Your task to perform on an android device: Go to Maps Image 0: 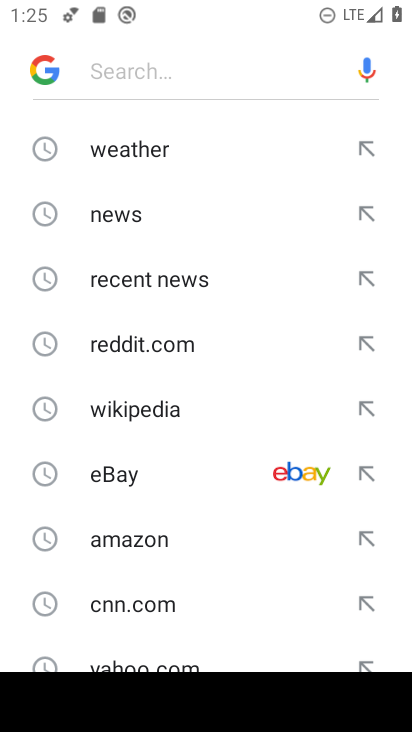
Step 0: press home button
Your task to perform on an android device: Go to Maps Image 1: 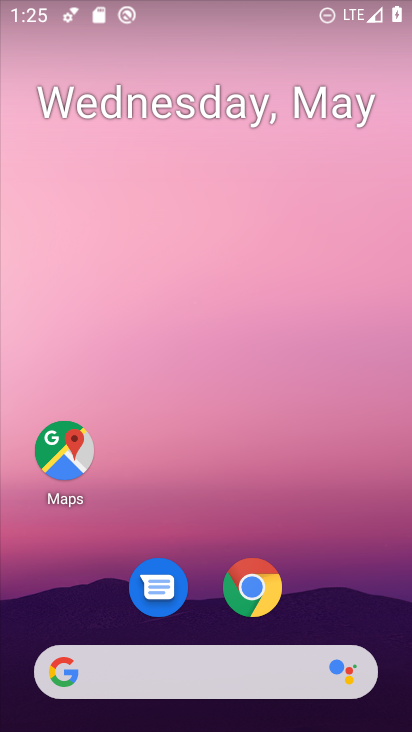
Step 1: drag from (305, 599) to (260, 170)
Your task to perform on an android device: Go to Maps Image 2: 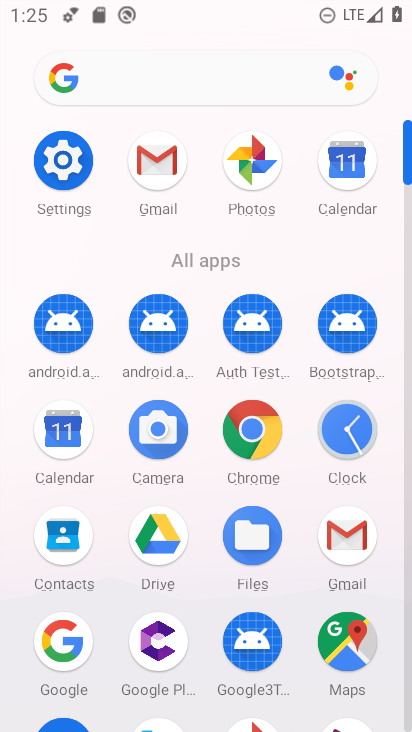
Step 2: click (346, 650)
Your task to perform on an android device: Go to Maps Image 3: 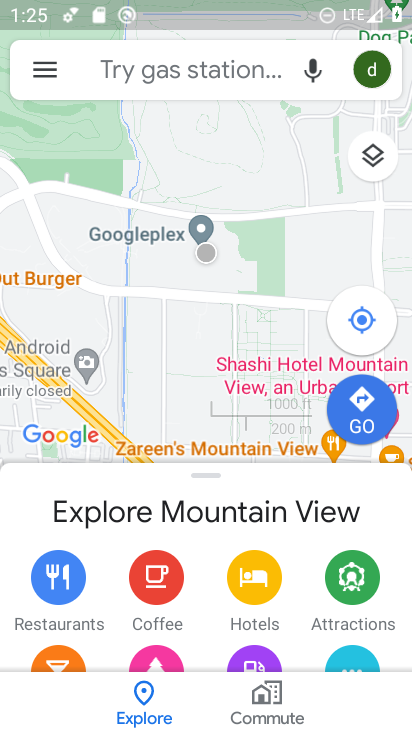
Step 3: task complete